Your task to perform on an android device: install app "The Home Depot" Image 0: 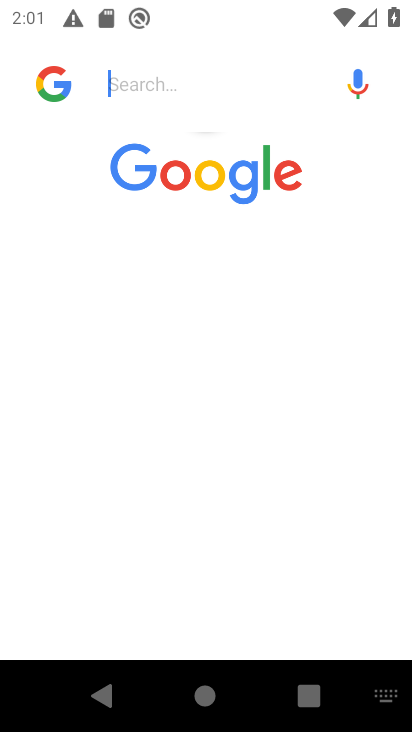
Step 0: press back button
Your task to perform on an android device: install app "The Home Depot" Image 1: 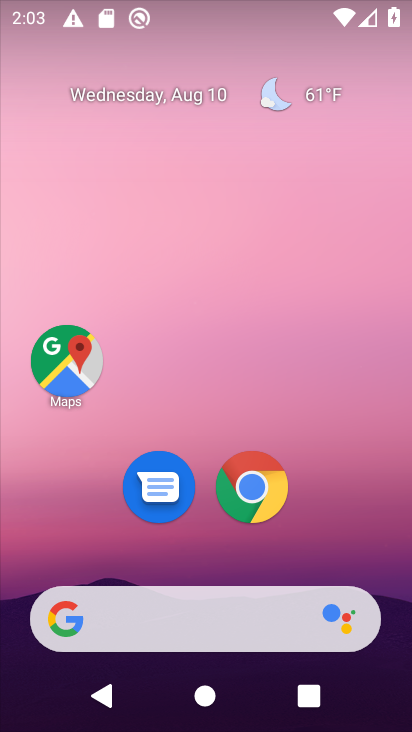
Step 1: drag from (125, 531) to (10, 153)
Your task to perform on an android device: install app "The Home Depot" Image 2: 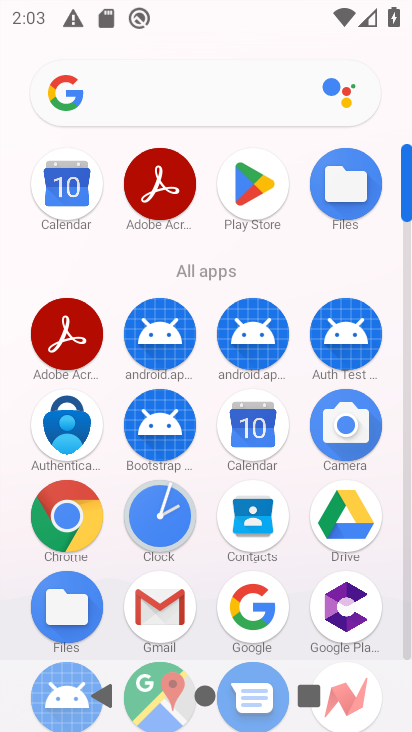
Step 2: click (238, 177)
Your task to perform on an android device: install app "The Home Depot" Image 3: 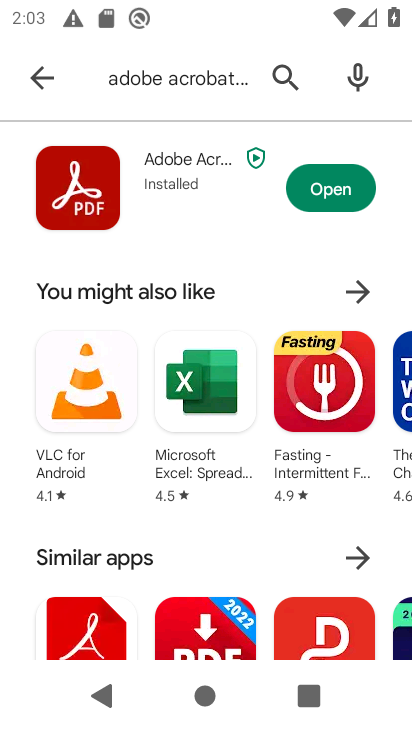
Step 3: click (279, 70)
Your task to perform on an android device: install app "The Home Depot" Image 4: 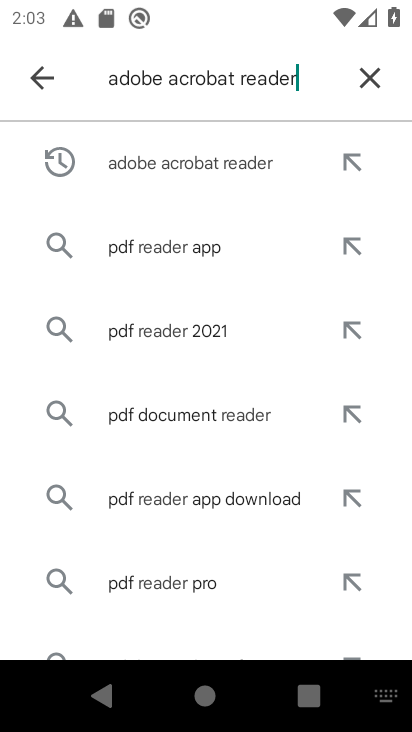
Step 4: click (369, 76)
Your task to perform on an android device: install app "The Home Depot" Image 5: 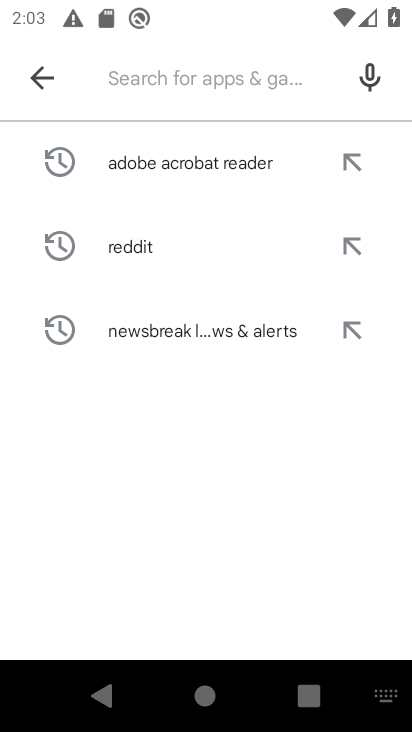
Step 5: type "The Home Depot"
Your task to perform on an android device: install app "The Home Depot" Image 6: 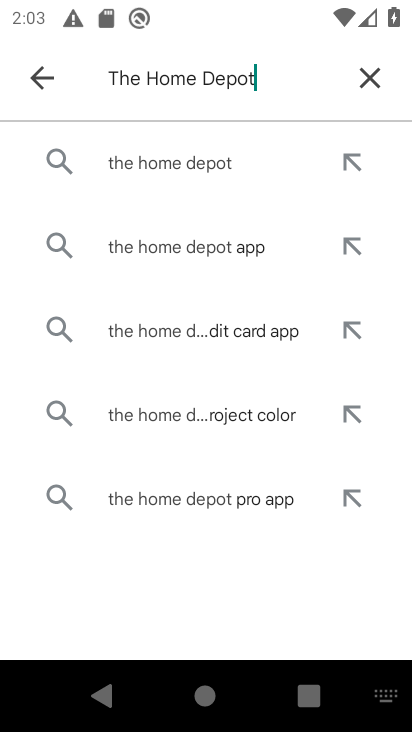
Step 6: click (144, 162)
Your task to perform on an android device: install app "The Home Depot" Image 7: 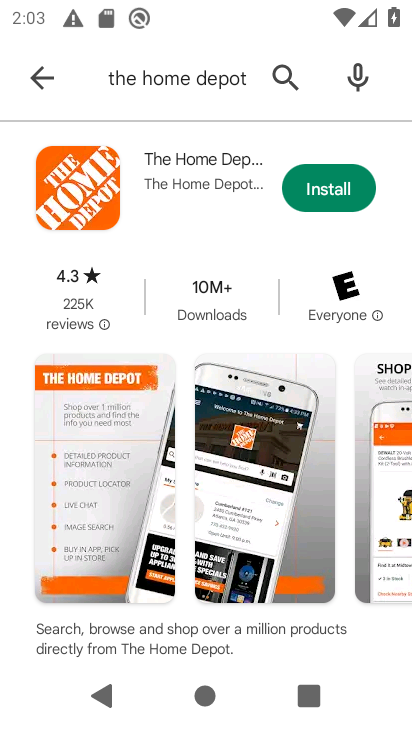
Step 7: click (333, 188)
Your task to perform on an android device: install app "The Home Depot" Image 8: 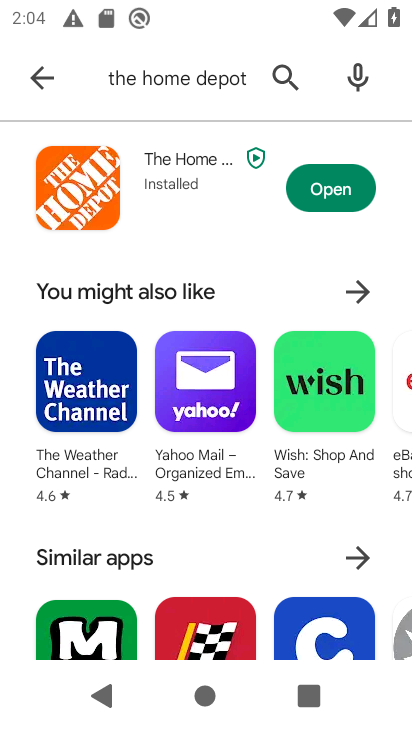
Step 8: click (354, 196)
Your task to perform on an android device: install app "The Home Depot" Image 9: 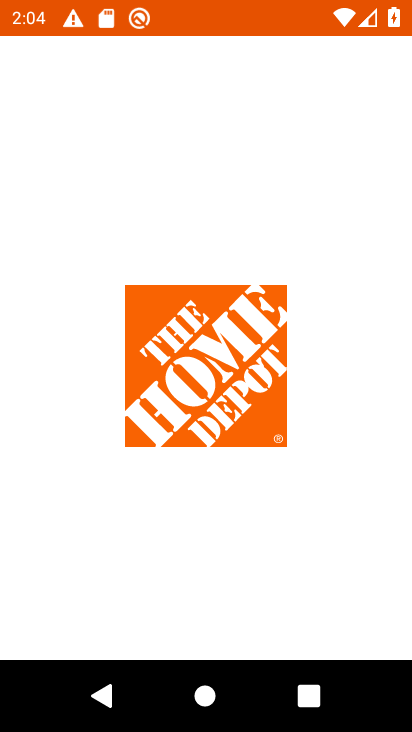
Step 9: task complete